Your task to perform on an android device: uninstall "Facebook" Image 0: 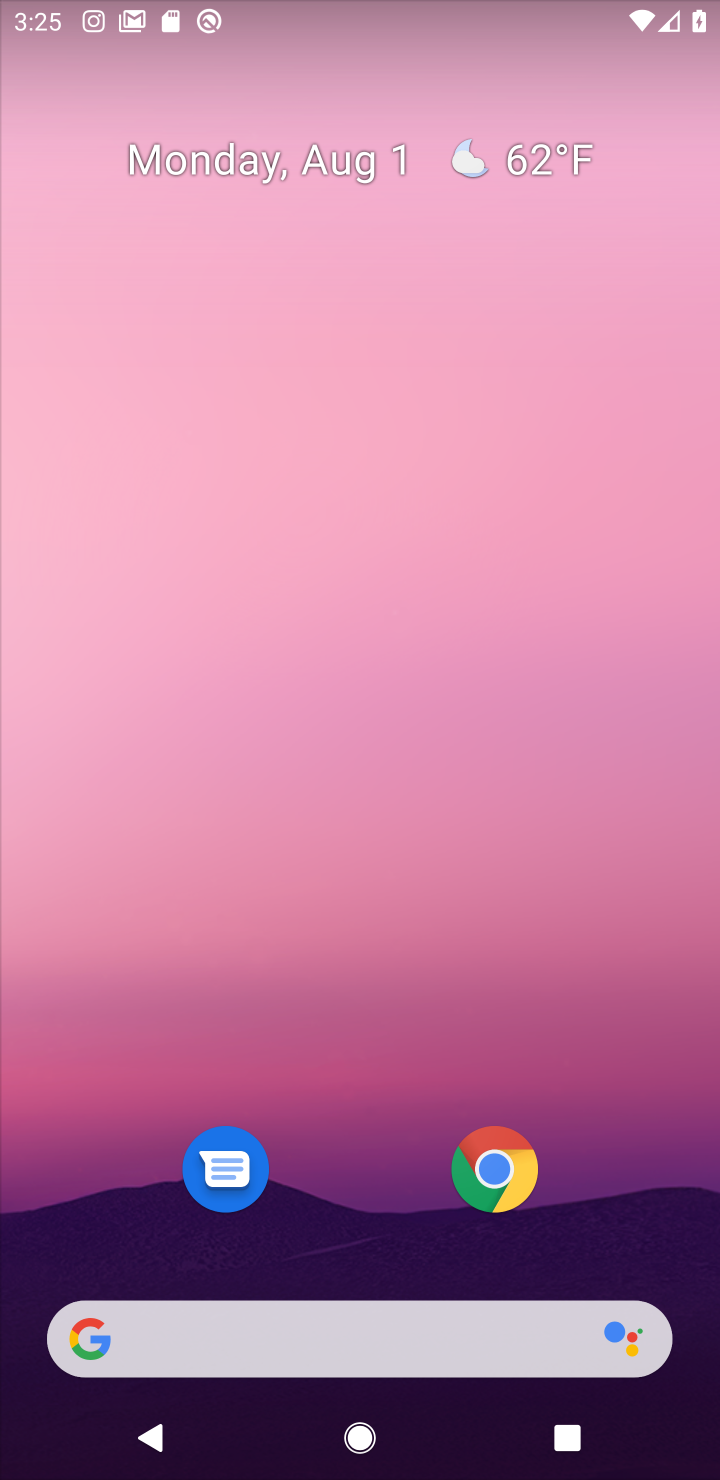
Step 0: press home button
Your task to perform on an android device: uninstall "Facebook" Image 1: 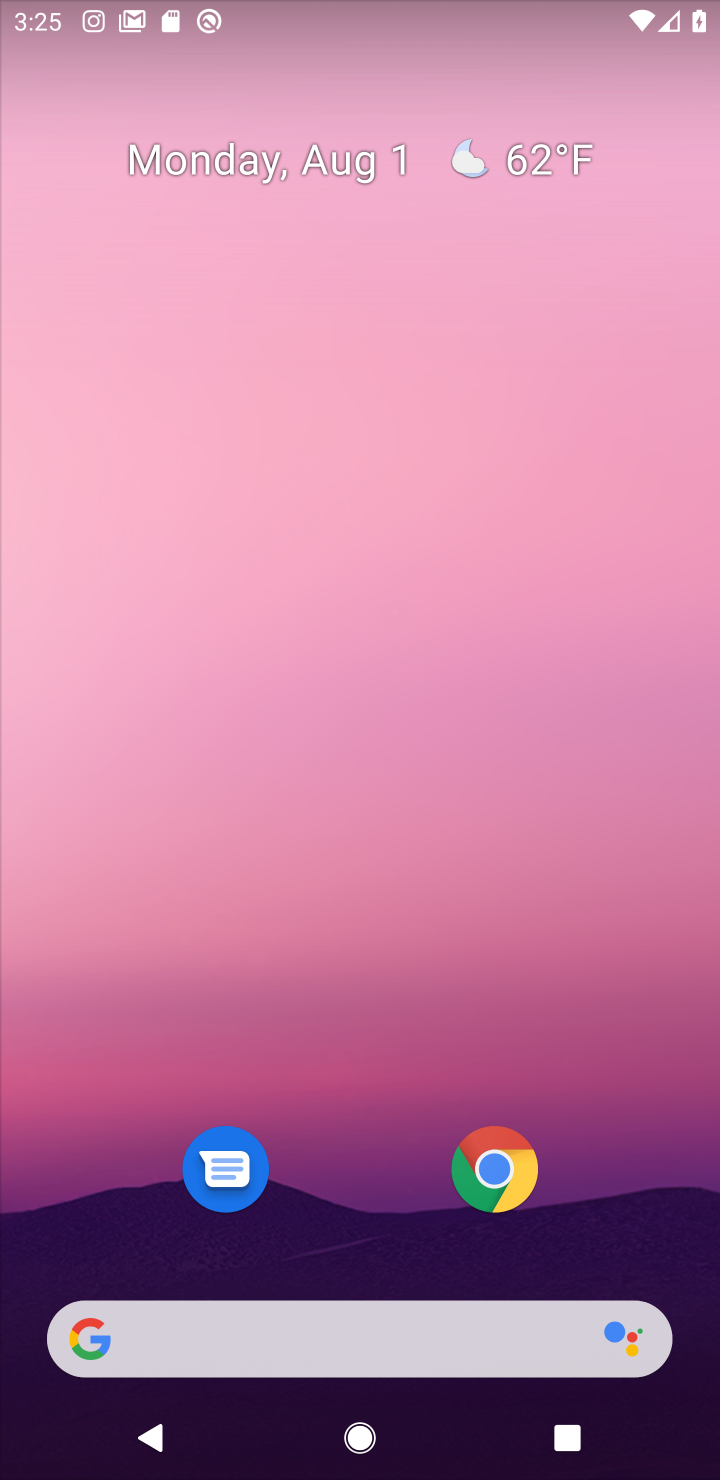
Step 1: drag from (327, 975) to (327, 120)
Your task to perform on an android device: uninstall "Facebook" Image 2: 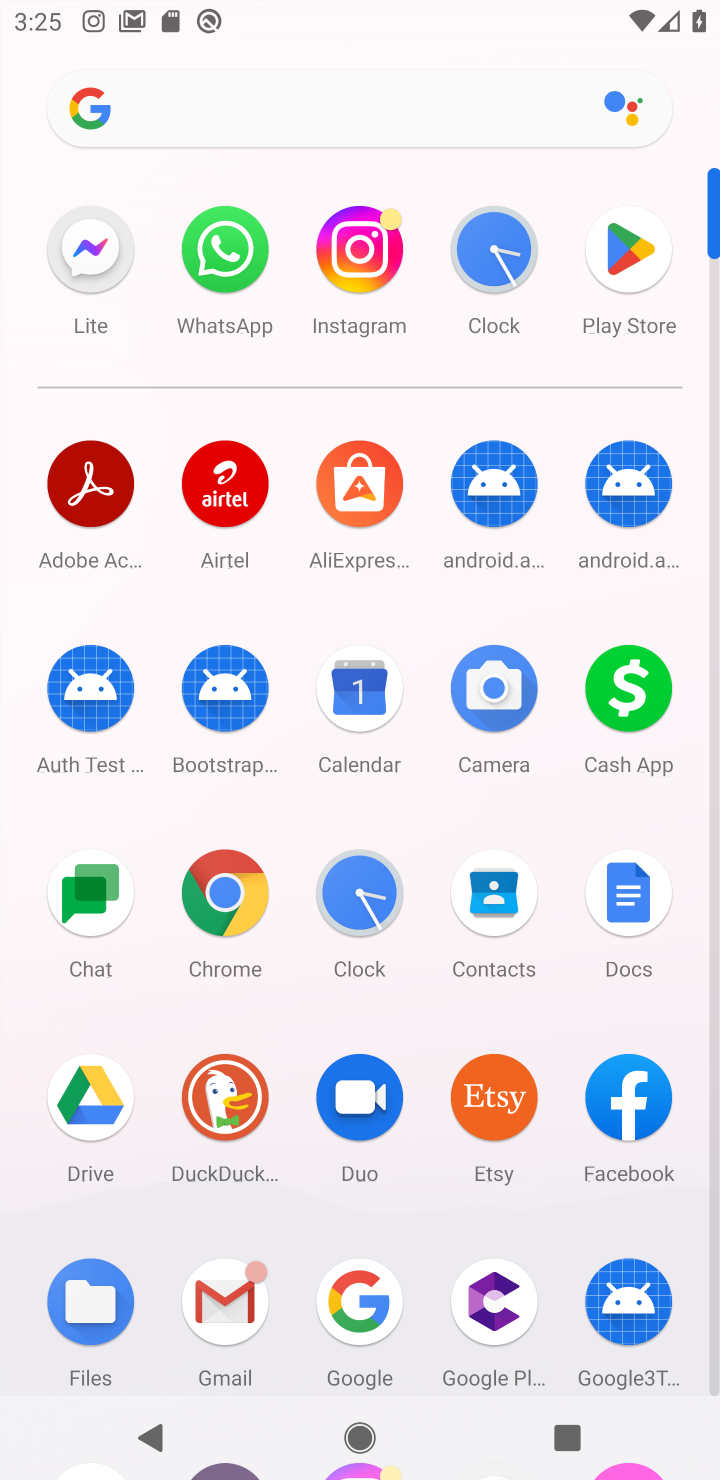
Step 2: click (615, 306)
Your task to perform on an android device: uninstall "Facebook" Image 3: 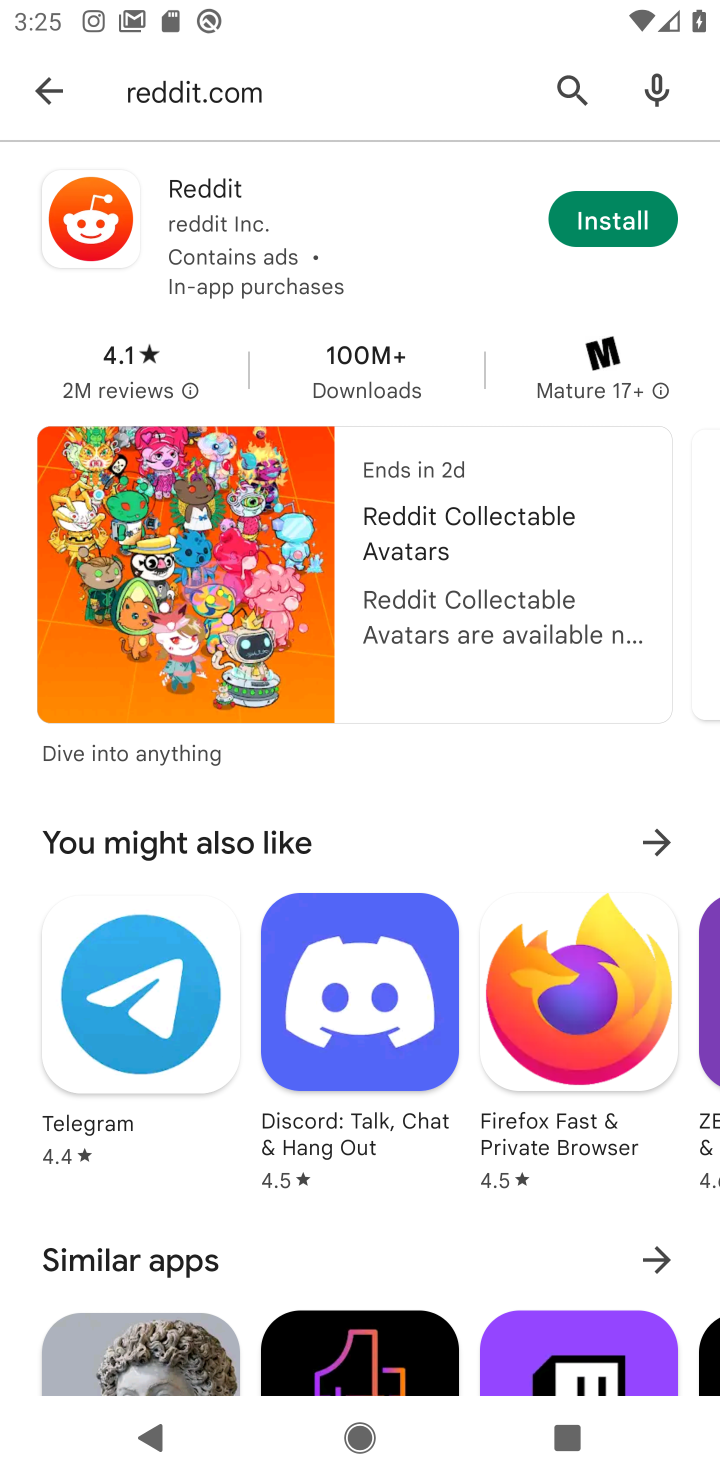
Step 3: click (47, 88)
Your task to perform on an android device: uninstall "Facebook" Image 4: 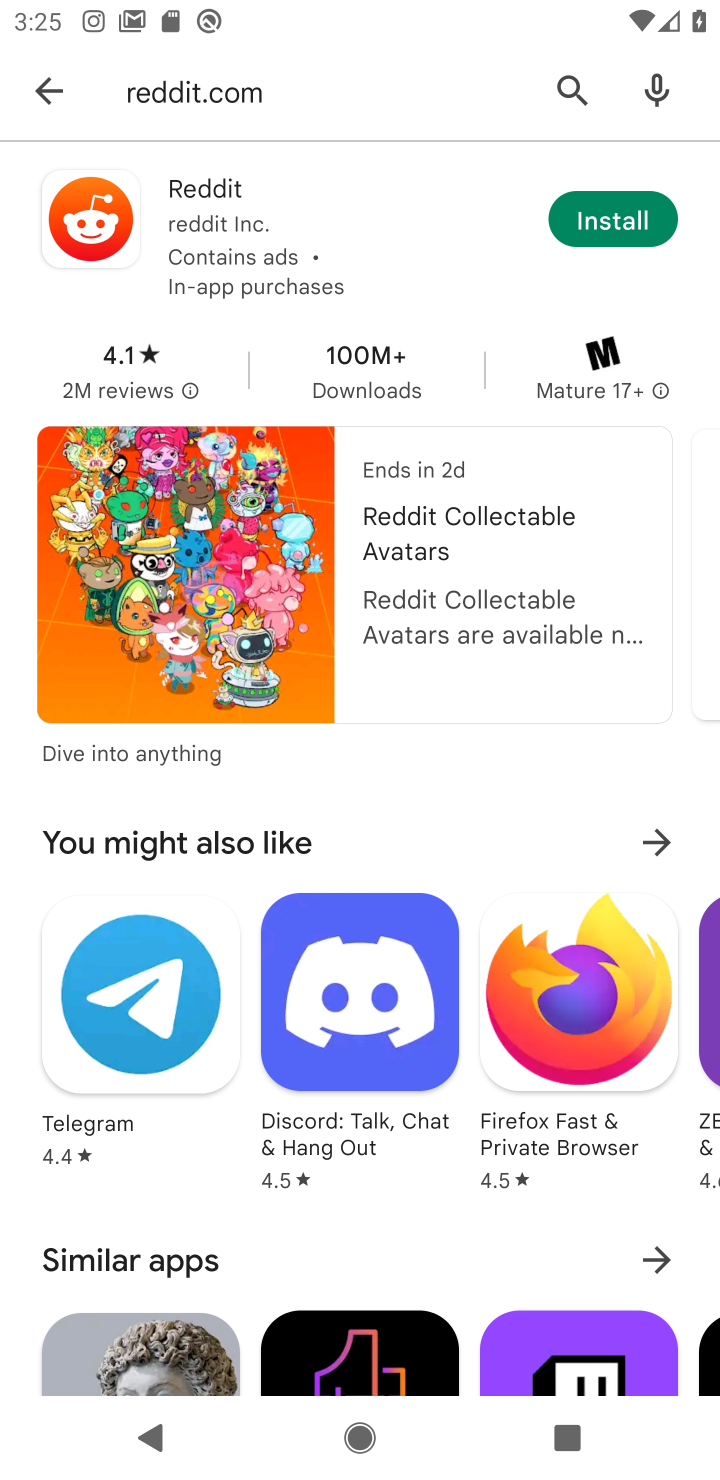
Step 4: click (36, 76)
Your task to perform on an android device: uninstall "Facebook" Image 5: 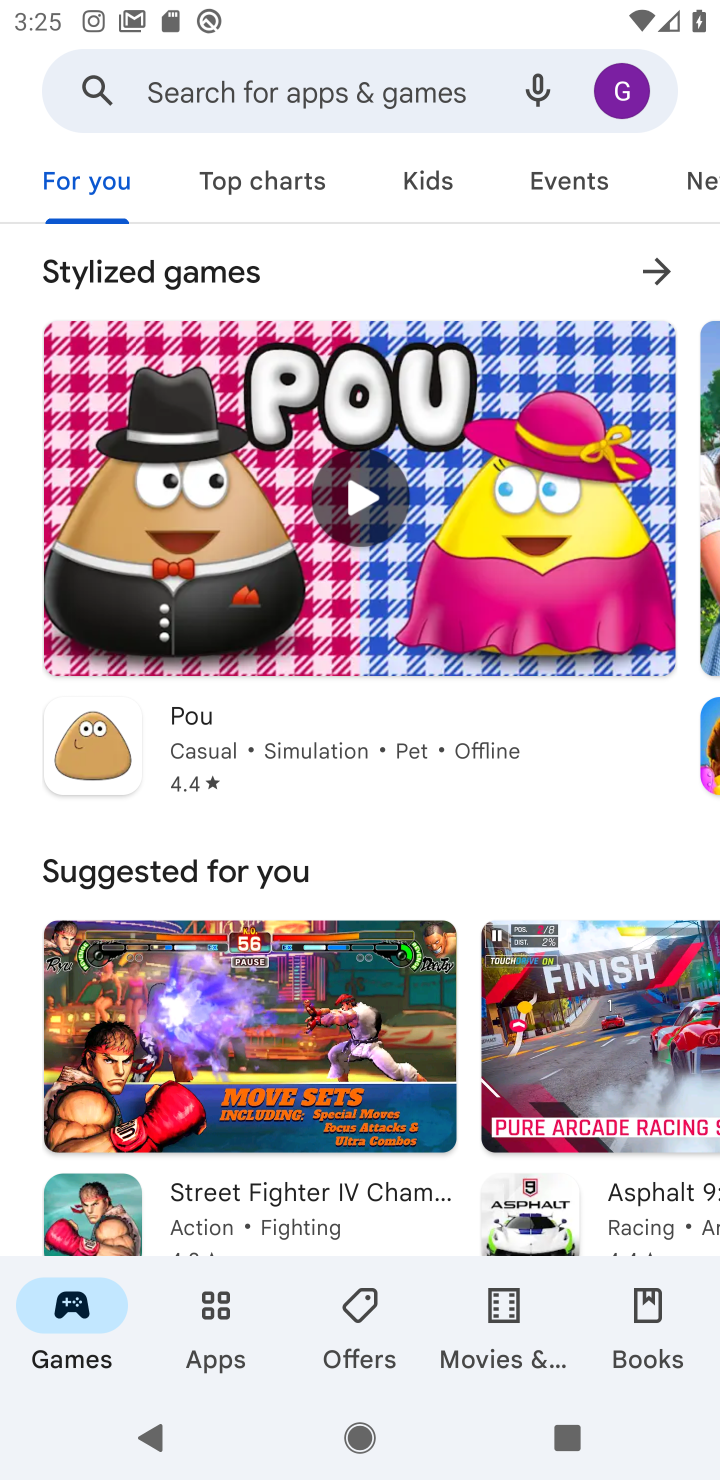
Step 5: click (205, 77)
Your task to perform on an android device: uninstall "Facebook" Image 6: 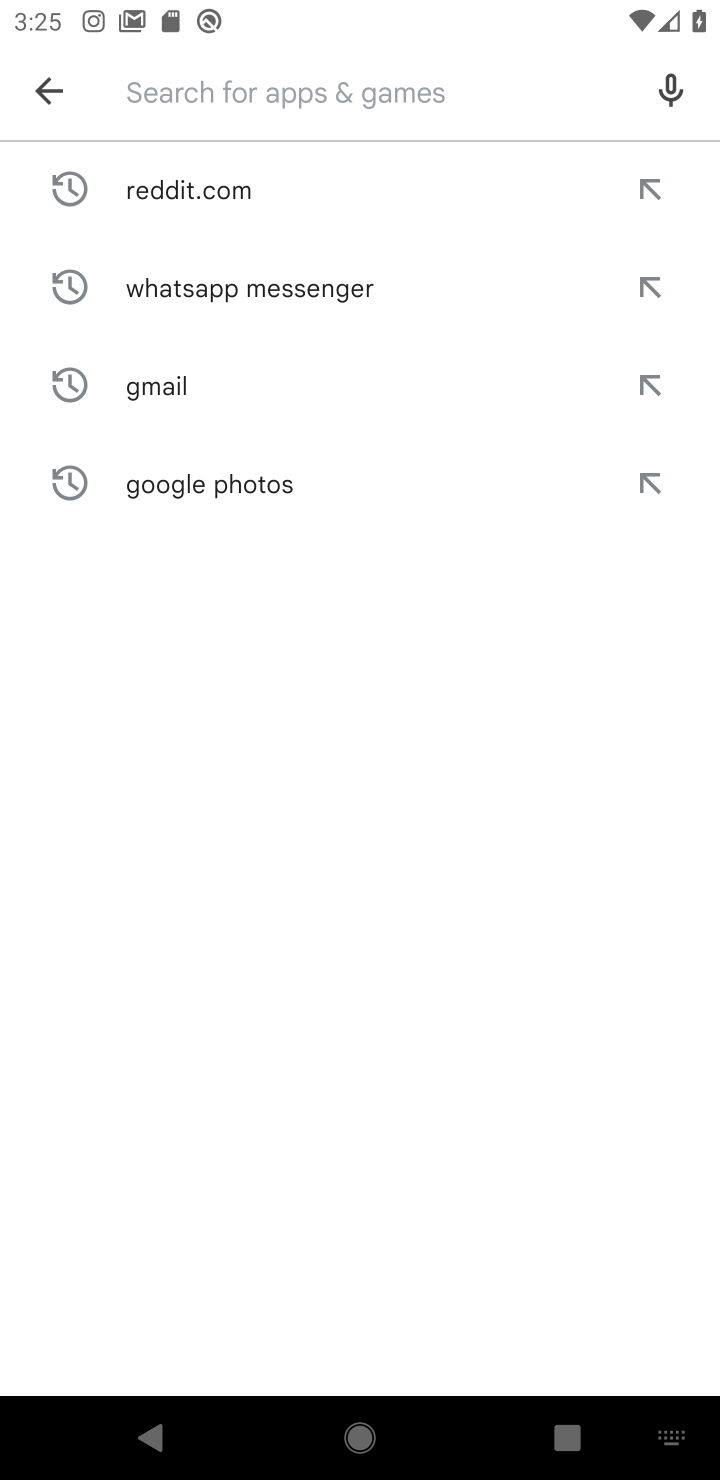
Step 6: type "Facebook"
Your task to perform on an android device: uninstall "Facebook" Image 7: 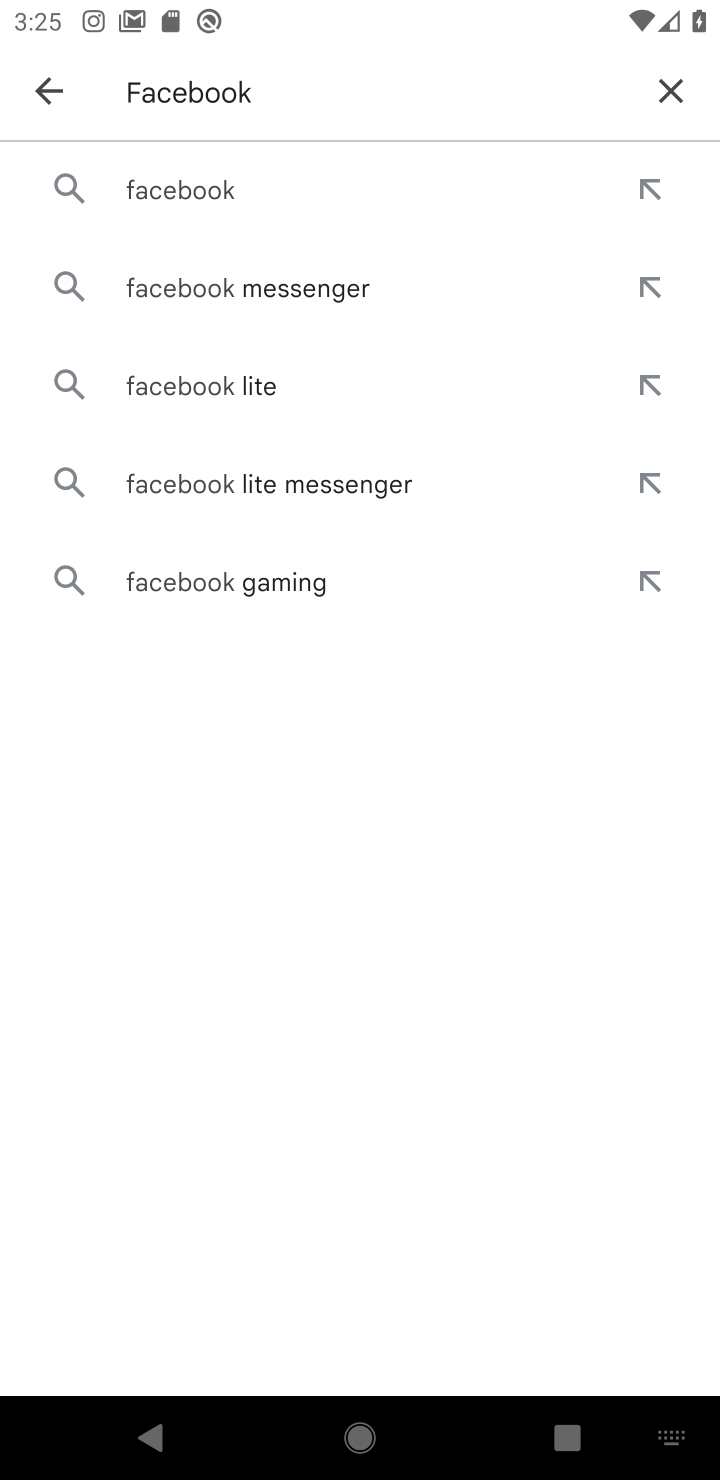
Step 7: click (156, 194)
Your task to perform on an android device: uninstall "Facebook" Image 8: 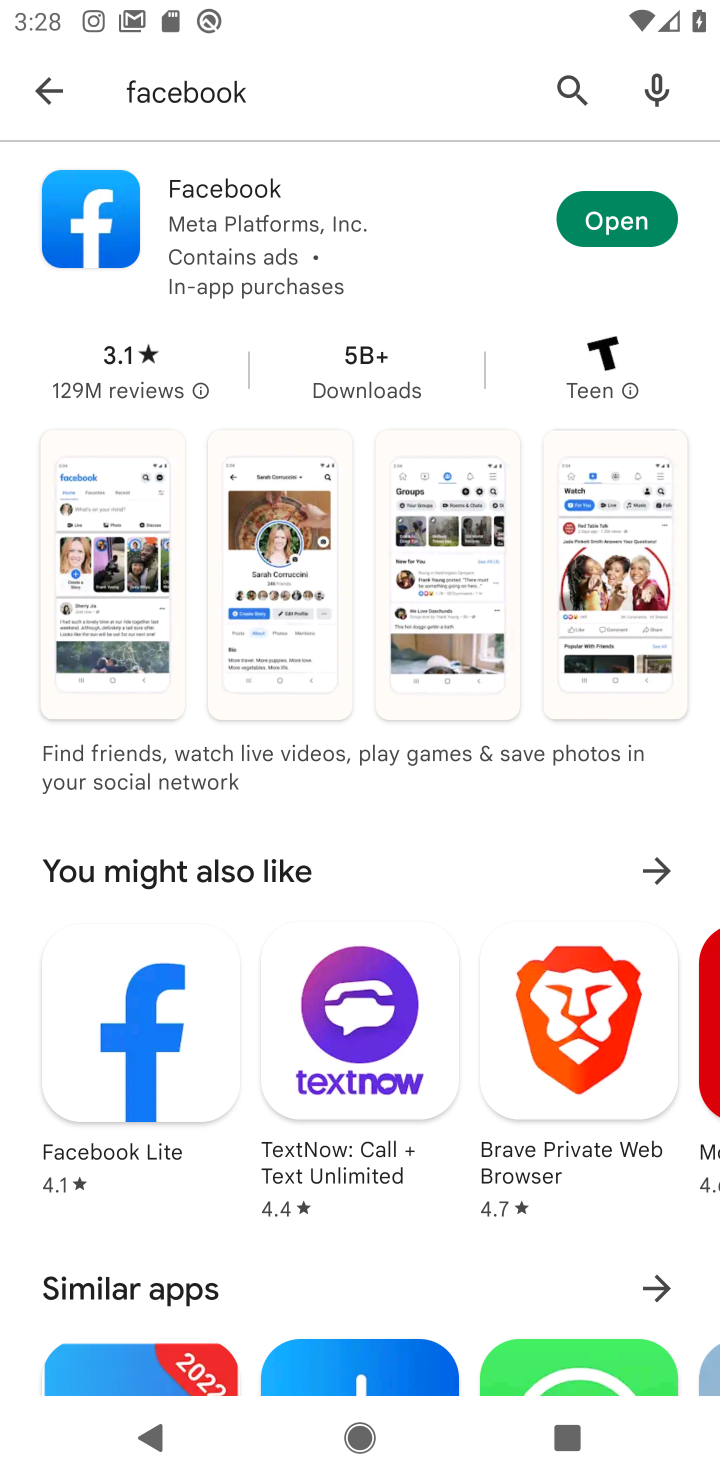
Step 8: click (84, 231)
Your task to perform on an android device: uninstall "Facebook" Image 9: 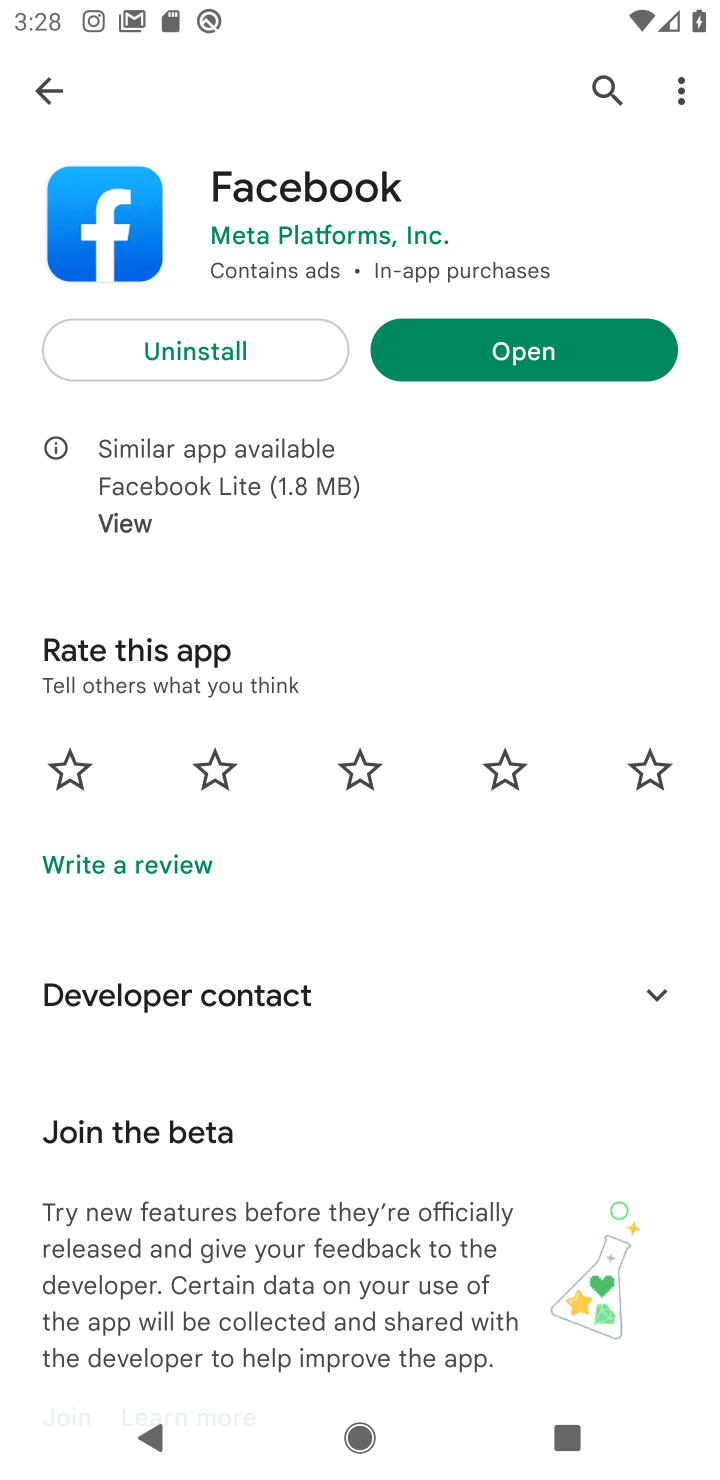
Step 9: click (108, 344)
Your task to perform on an android device: uninstall "Facebook" Image 10: 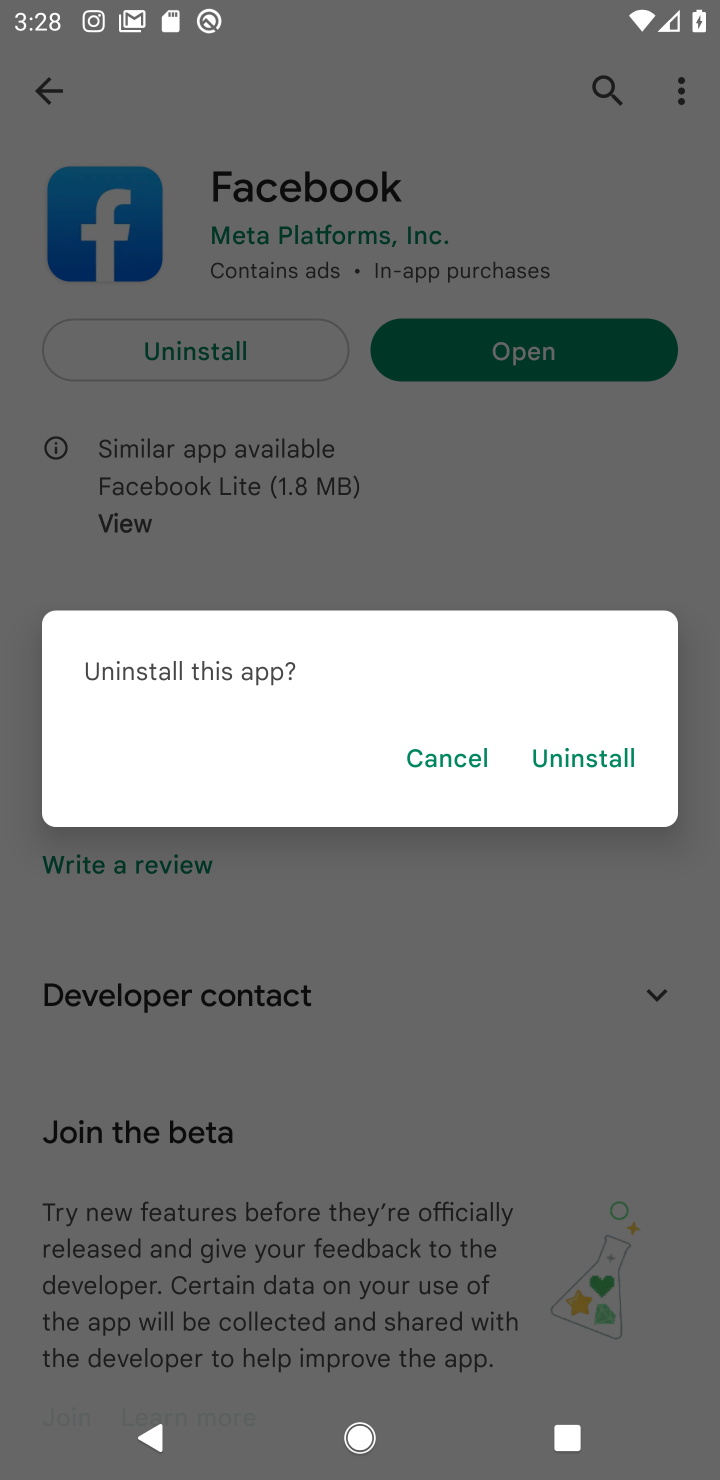
Step 10: click (539, 751)
Your task to perform on an android device: uninstall "Facebook" Image 11: 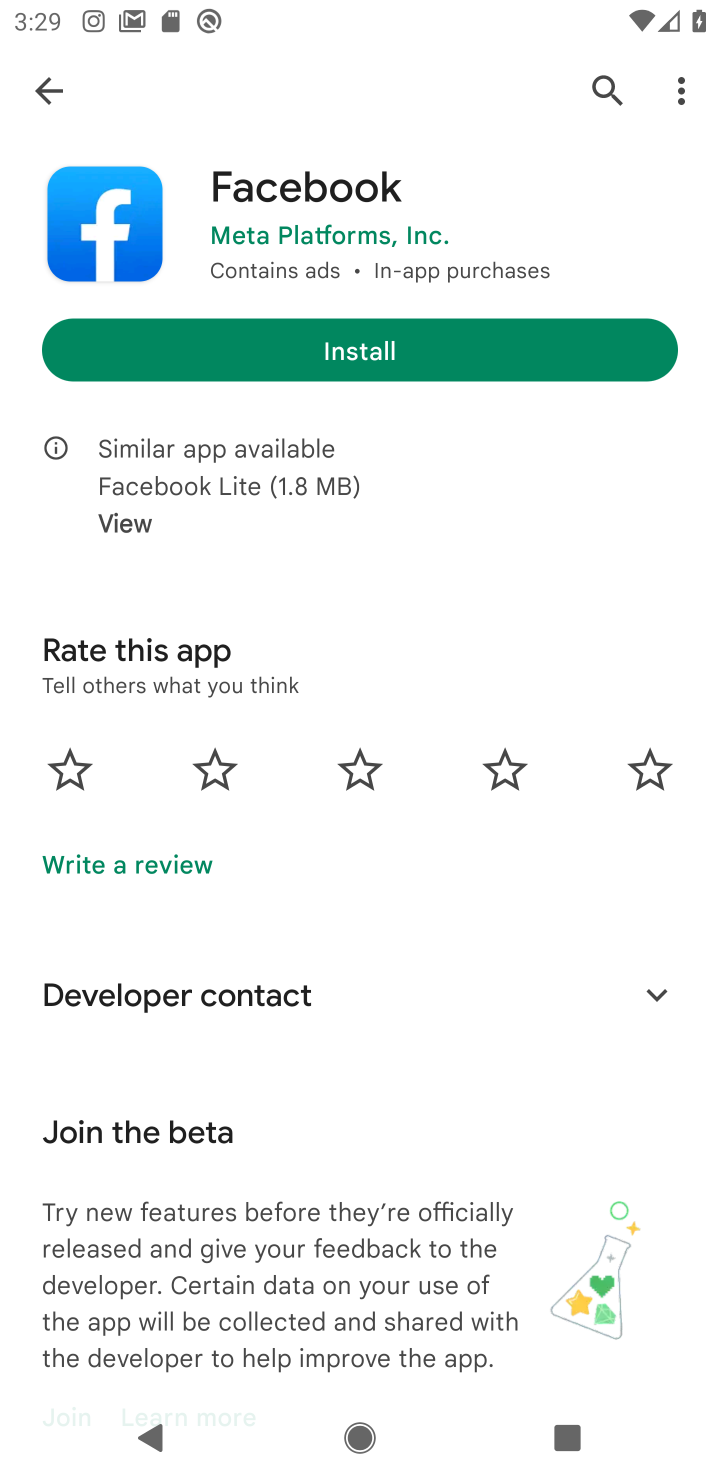
Step 11: task complete